Your task to perform on an android device: Go to sound settings Image 0: 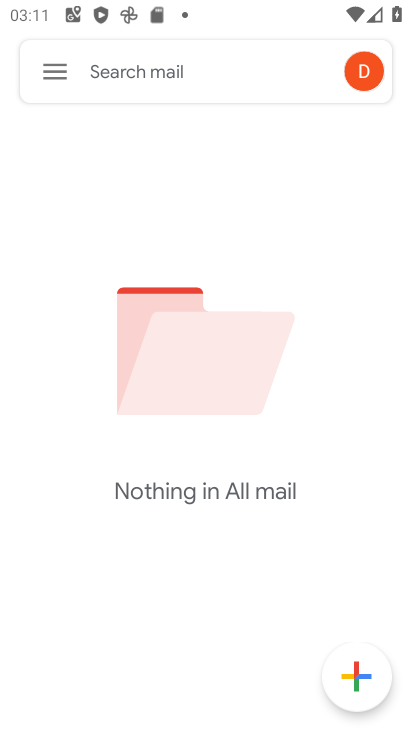
Step 0: press home button
Your task to perform on an android device: Go to sound settings Image 1: 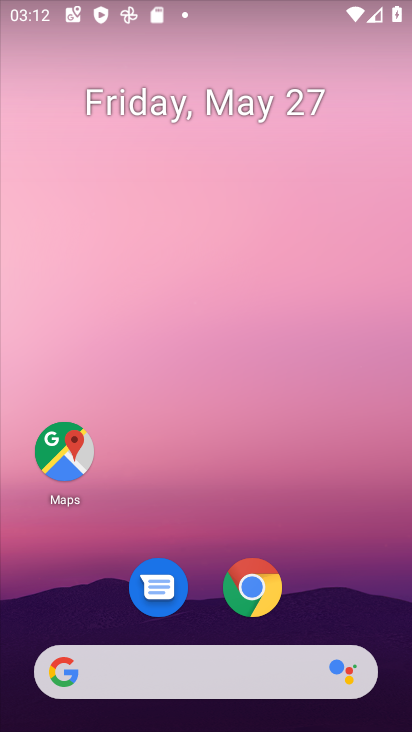
Step 1: drag from (336, 584) to (294, 75)
Your task to perform on an android device: Go to sound settings Image 2: 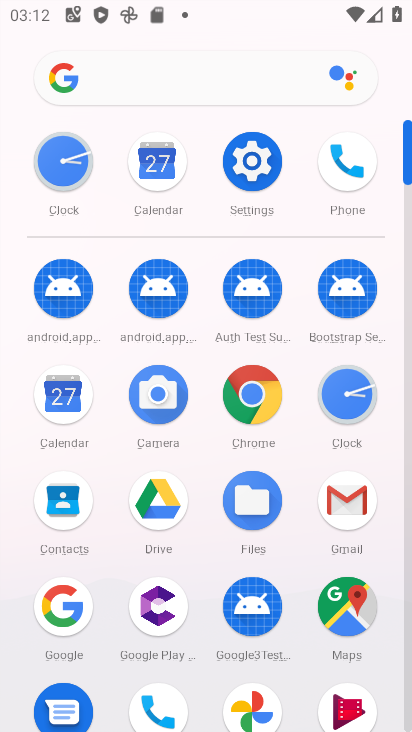
Step 2: click (248, 161)
Your task to perform on an android device: Go to sound settings Image 3: 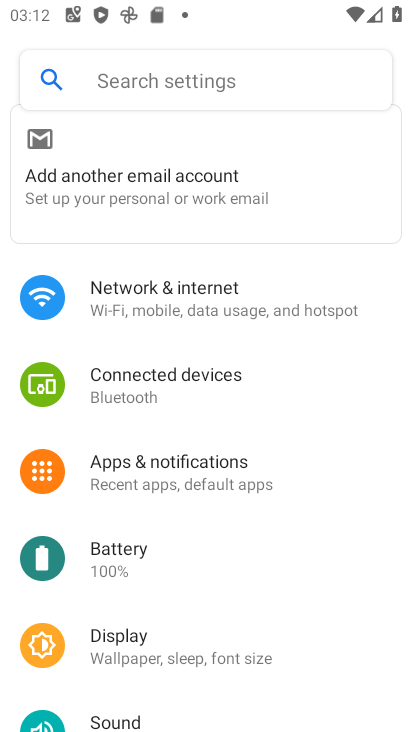
Step 3: drag from (351, 685) to (384, 319)
Your task to perform on an android device: Go to sound settings Image 4: 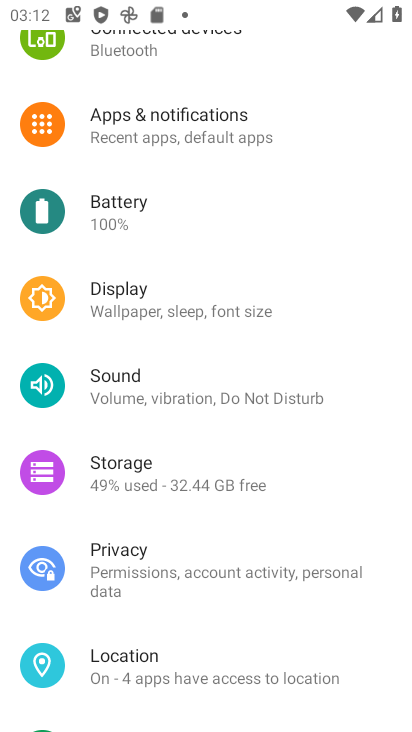
Step 4: click (126, 390)
Your task to perform on an android device: Go to sound settings Image 5: 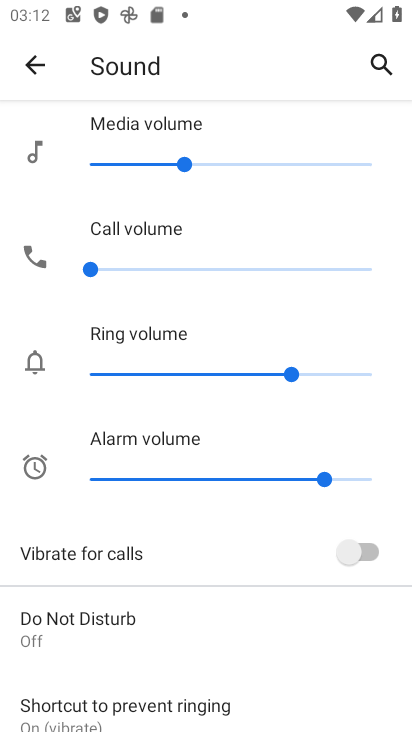
Step 5: task complete